Your task to perform on an android device: search for starred emails in the gmail app Image 0: 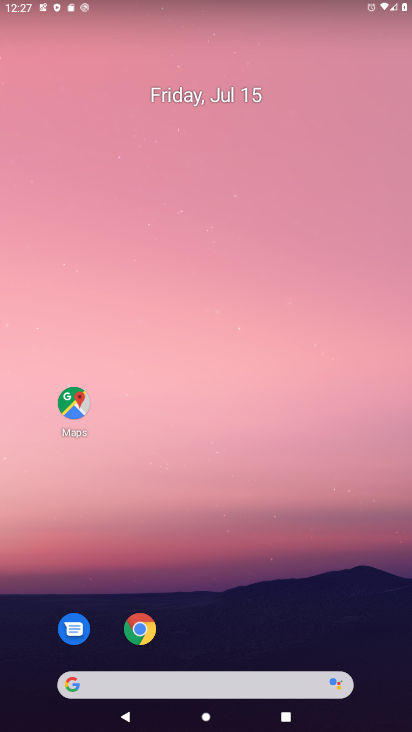
Step 0: press home button
Your task to perform on an android device: search for starred emails in the gmail app Image 1: 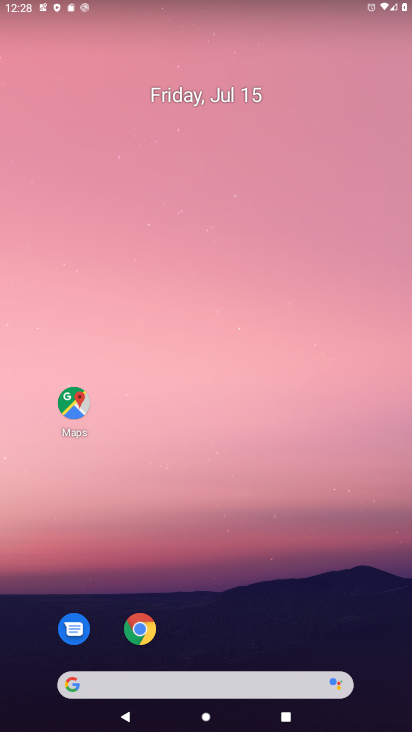
Step 1: drag from (213, 650) to (202, 26)
Your task to perform on an android device: search for starred emails in the gmail app Image 2: 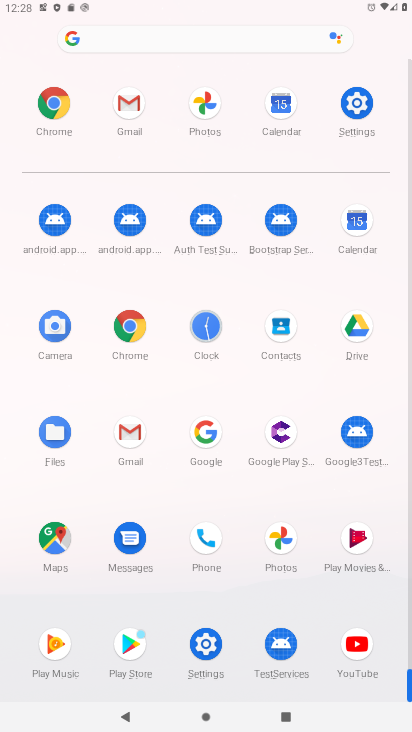
Step 2: click (126, 106)
Your task to perform on an android device: search for starred emails in the gmail app Image 3: 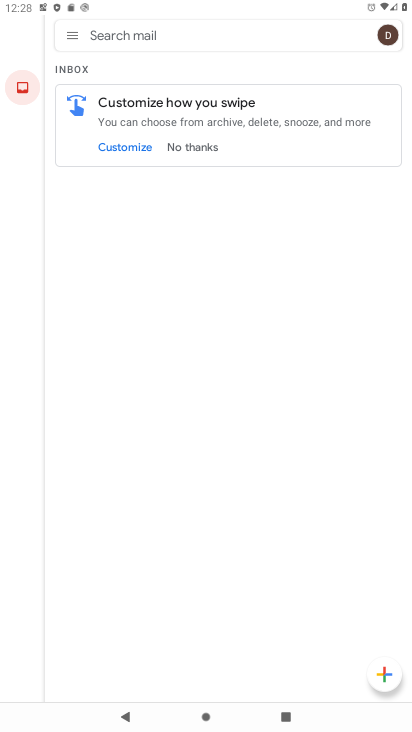
Step 3: click (72, 30)
Your task to perform on an android device: search for starred emails in the gmail app Image 4: 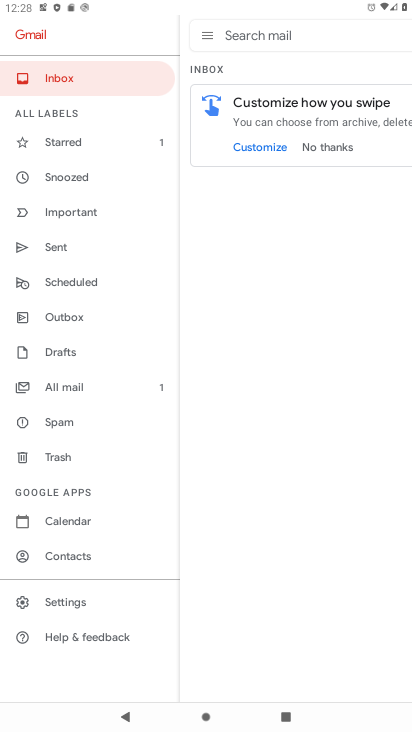
Step 4: click (67, 140)
Your task to perform on an android device: search for starred emails in the gmail app Image 5: 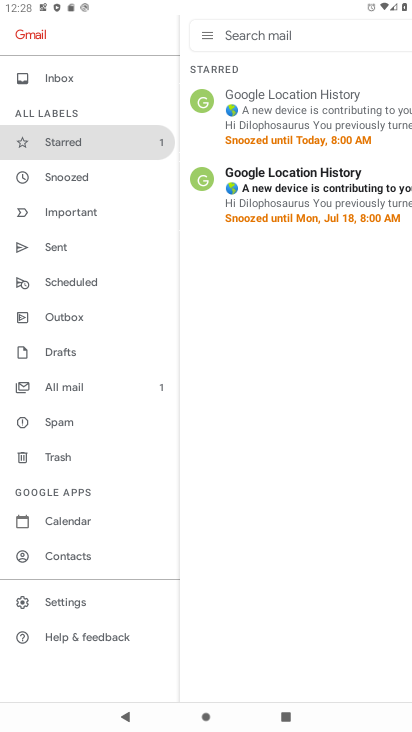
Step 5: click (312, 121)
Your task to perform on an android device: search for starred emails in the gmail app Image 6: 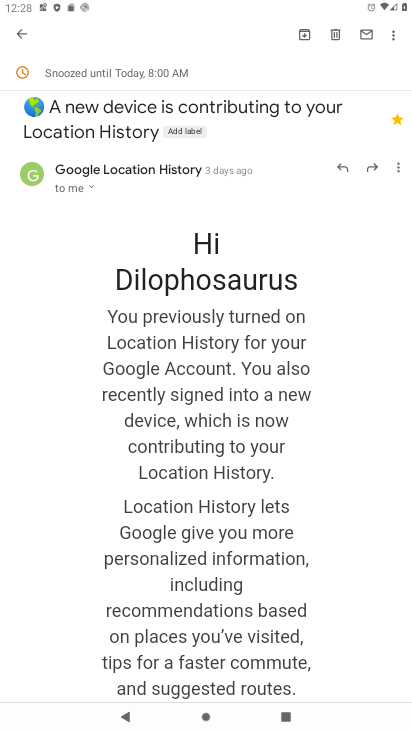
Step 6: task complete